Your task to perform on an android device: View the shopping cart on walmart. Add "dell xps" to the cart on walmart Image 0: 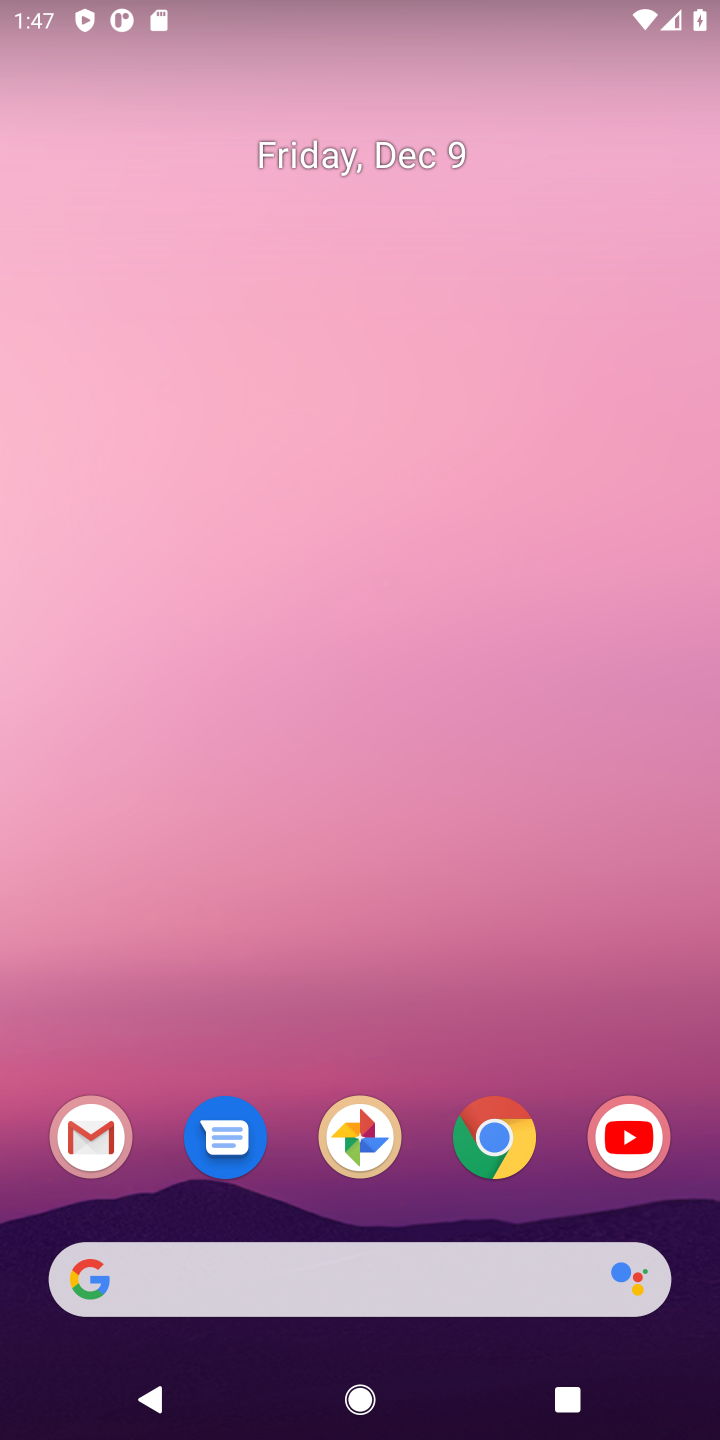
Step 0: task complete